Your task to perform on an android device: Go to Yahoo.com Image 0: 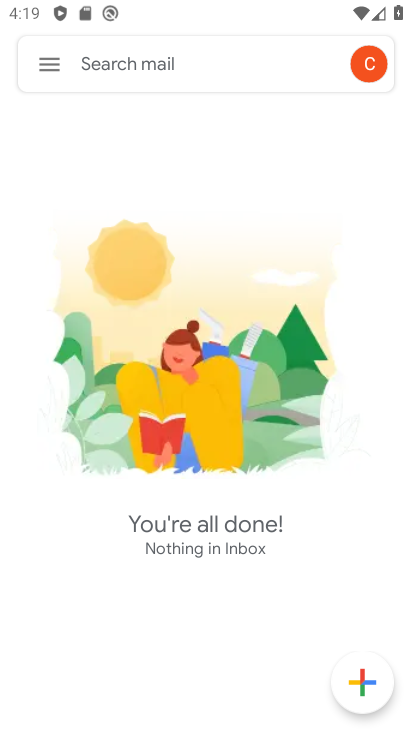
Step 0: press home button
Your task to perform on an android device: Go to Yahoo.com Image 1: 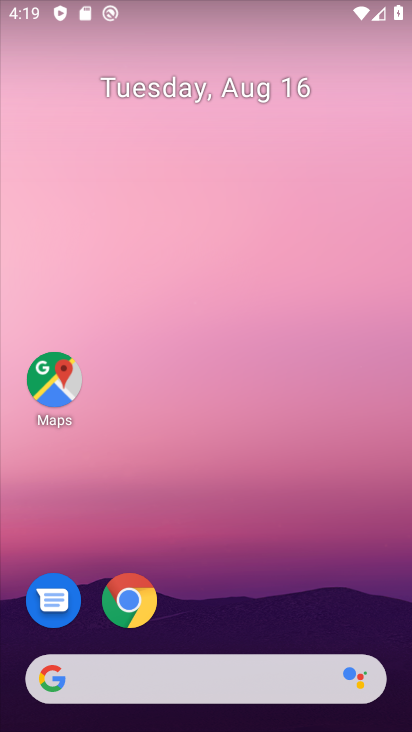
Step 1: click (126, 591)
Your task to perform on an android device: Go to Yahoo.com Image 2: 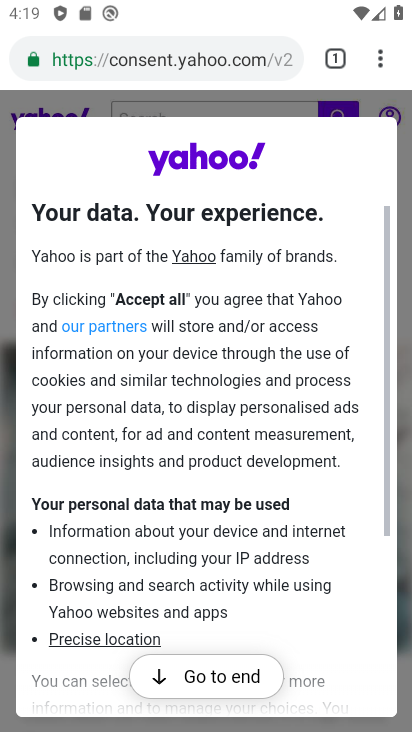
Step 2: click (208, 146)
Your task to perform on an android device: Go to Yahoo.com Image 3: 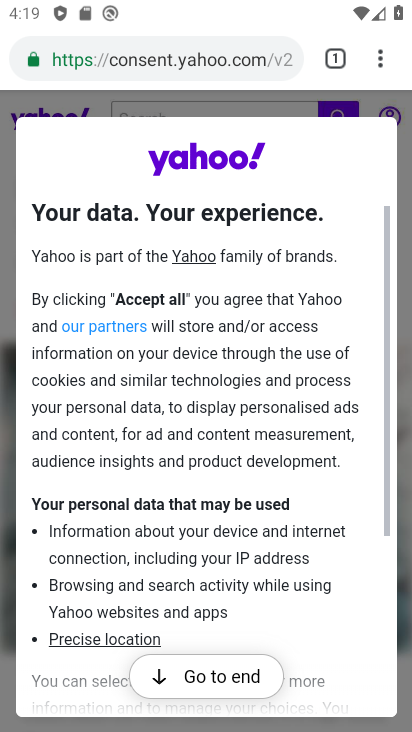
Step 3: click (225, 679)
Your task to perform on an android device: Go to Yahoo.com Image 4: 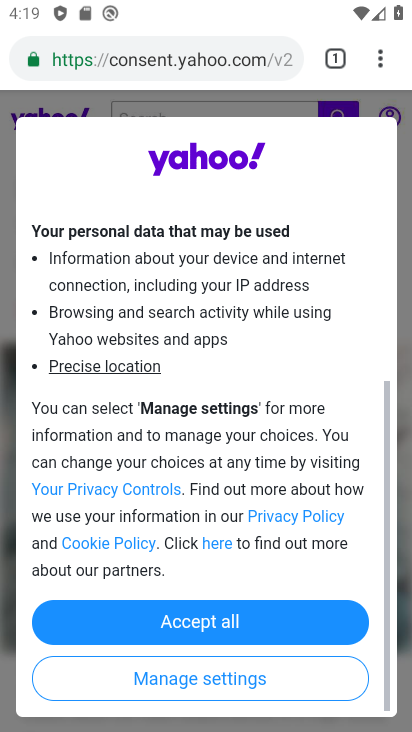
Step 4: click (233, 613)
Your task to perform on an android device: Go to Yahoo.com Image 5: 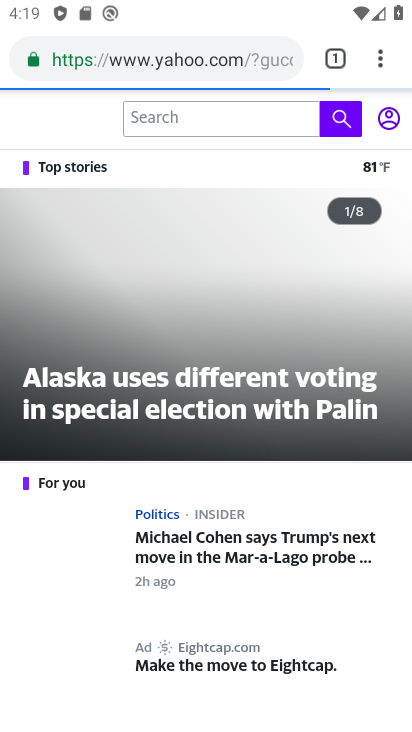
Step 5: task complete